Your task to perform on an android device: Open battery settings Image 0: 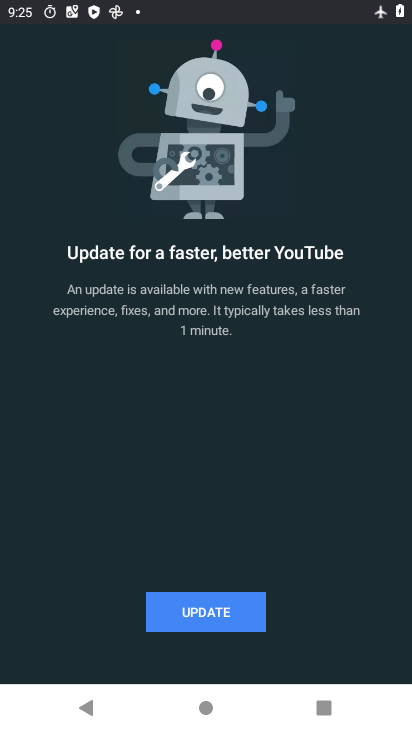
Step 0: press home button
Your task to perform on an android device: Open battery settings Image 1: 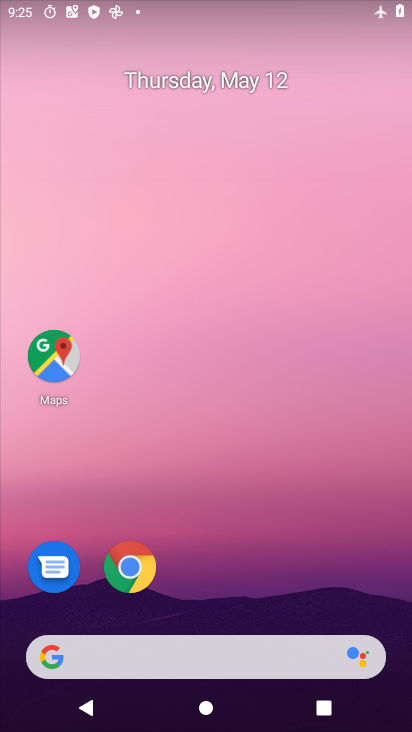
Step 1: drag from (236, 619) to (231, 125)
Your task to perform on an android device: Open battery settings Image 2: 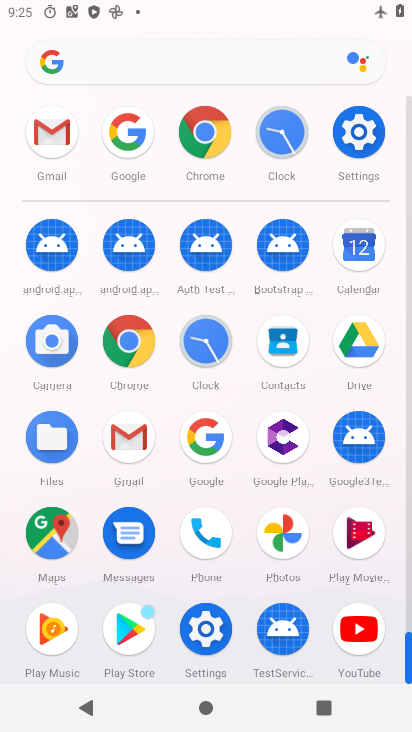
Step 2: click (366, 161)
Your task to perform on an android device: Open battery settings Image 3: 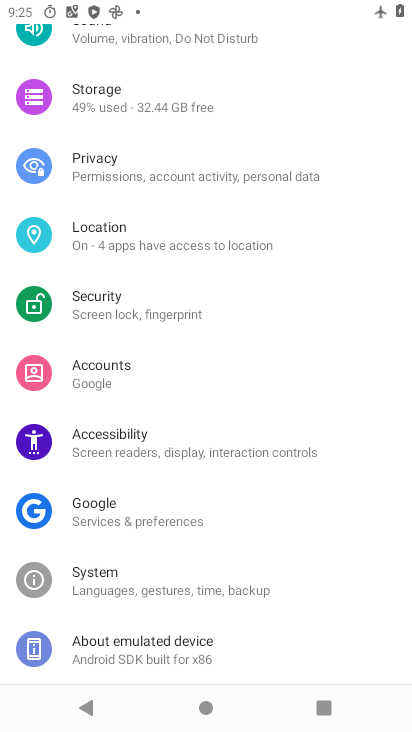
Step 3: drag from (133, 242) to (143, 530)
Your task to perform on an android device: Open battery settings Image 4: 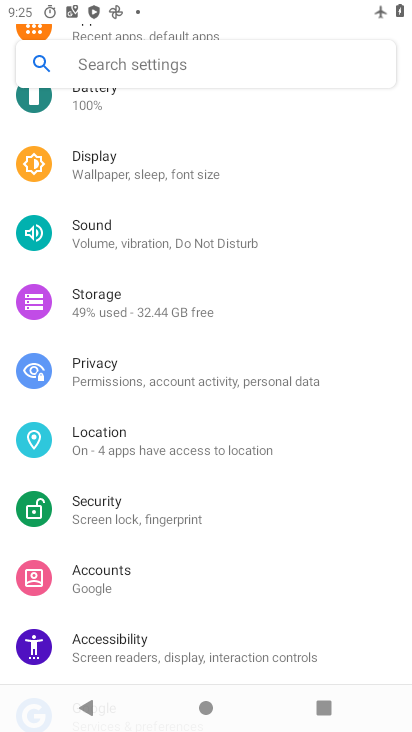
Step 4: drag from (180, 201) to (193, 542)
Your task to perform on an android device: Open battery settings Image 5: 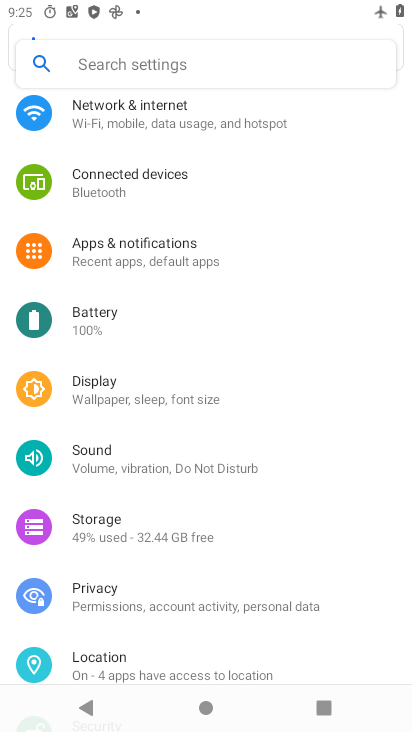
Step 5: click (152, 307)
Your task to perform on an android device: Open battery settings Image 6: 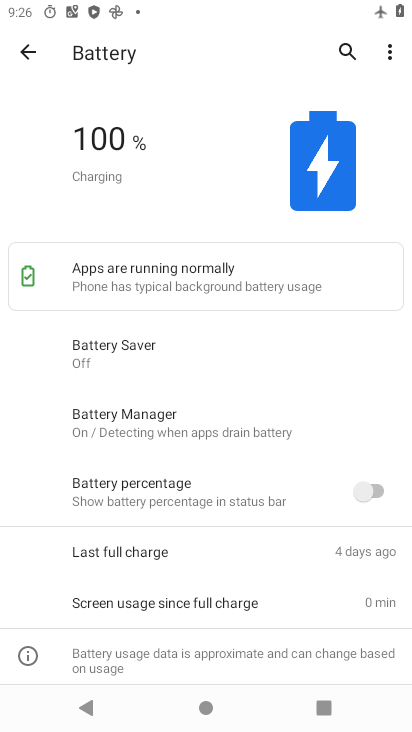
Step 6: task complete